Your task to perform on an android device: stop showing notifications on the lock screen Image 0: 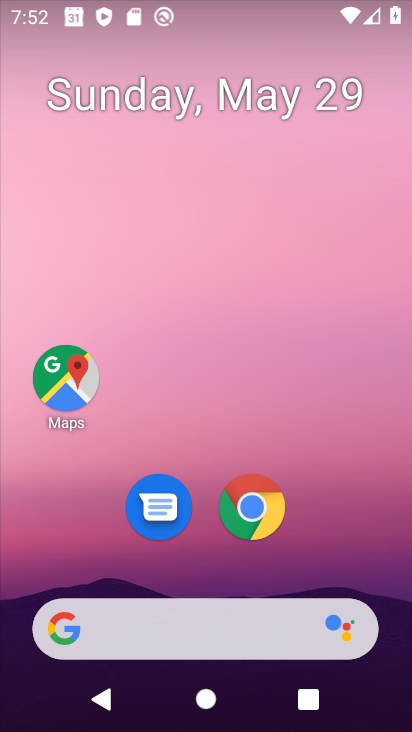
Step 0: drag from (380, 568) to (274, 188)
Your task to perform on an android device: stop showing notifications on the lock screen Image 1: 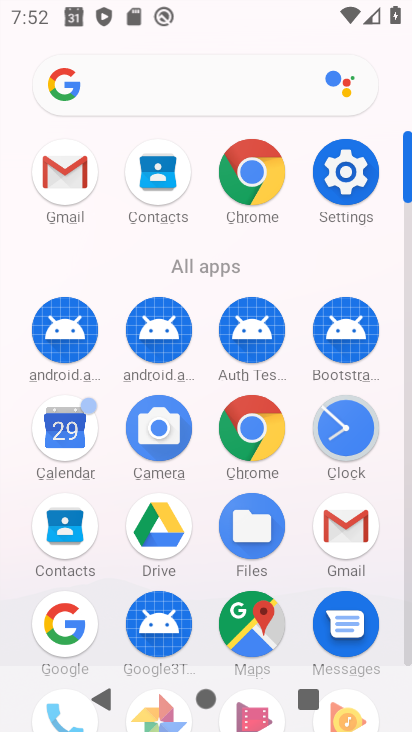
Step 1: click (327, 185)
Your task to perform on an android device: stop showing notifications on the lock screen Image 2: 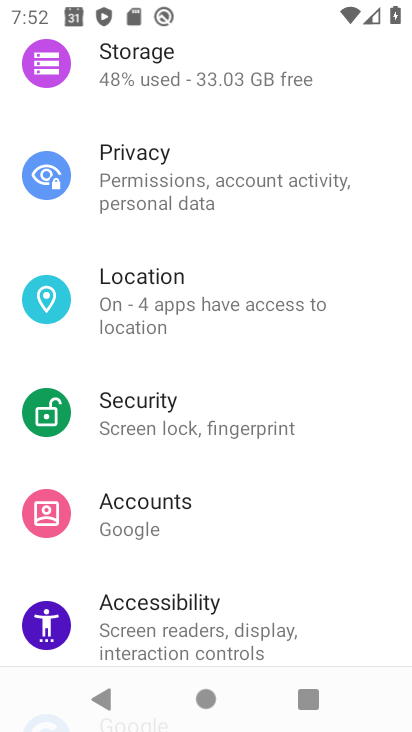
Step 2: drag from (169, 115) to (170, 579)
Your task to perform on an android device: stop showing notifications on the lock screen Image 3: 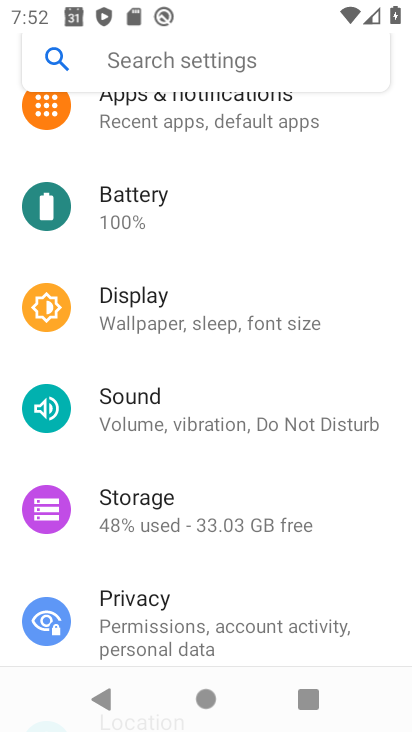
Step 3: drag from (191, 216) to (195, 445)
Your task to perform on an android device: stop showing notifications on the lock screen Image 4: 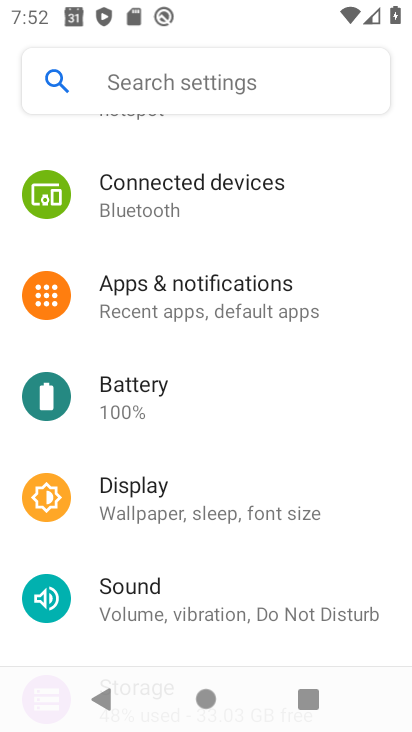
Step 4: click (183, 316)
Your task to perform on an android device: stop showing notifications on the lock screen Image 5: 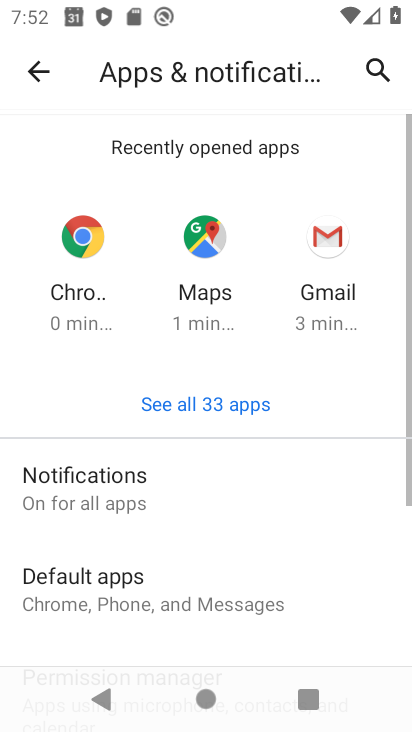
Step 5: click (125, 467)
Your task to perform on an android device: stop showing notifications on the lock screen Image 6: 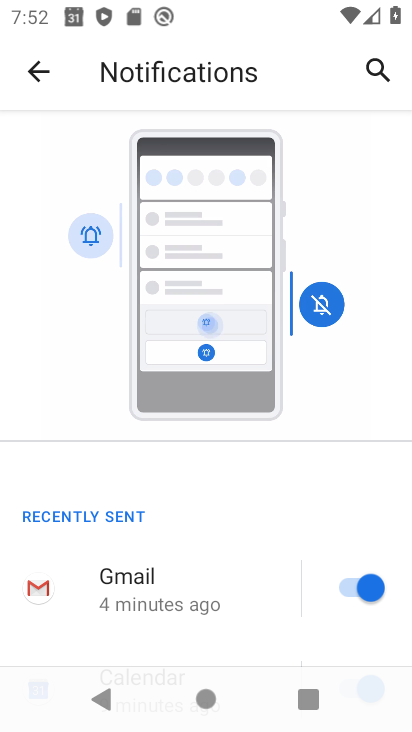
Step 6: drag from (235, 508) to (182, 9)
Your task to perform on an android device: stop showing notifications on the lock screen Image 7: 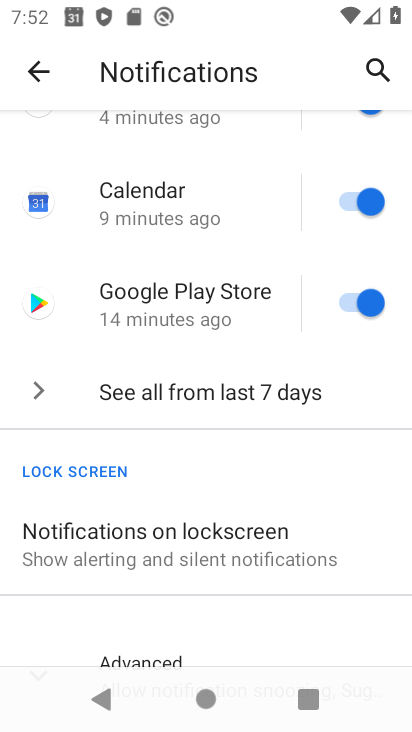
Step 7: drag from (277, 528) to (42, 327)
Your task to perform on an android device: stop showing notifications on the lock screen Image 8: 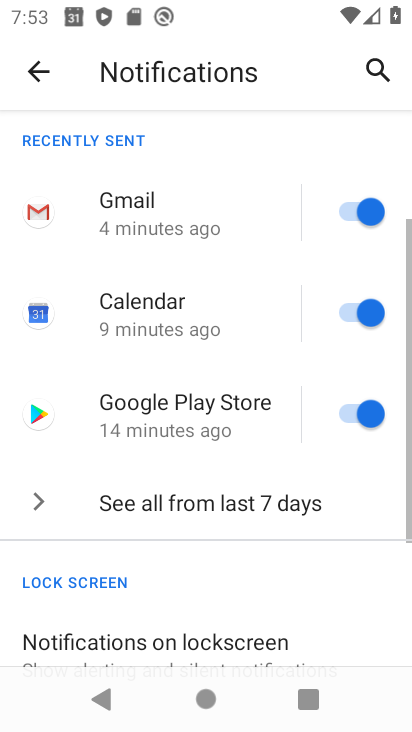
Step 8: click (229, 468)
Your task to perform on an android device: stop showing notifications on the lock screen Image 9: 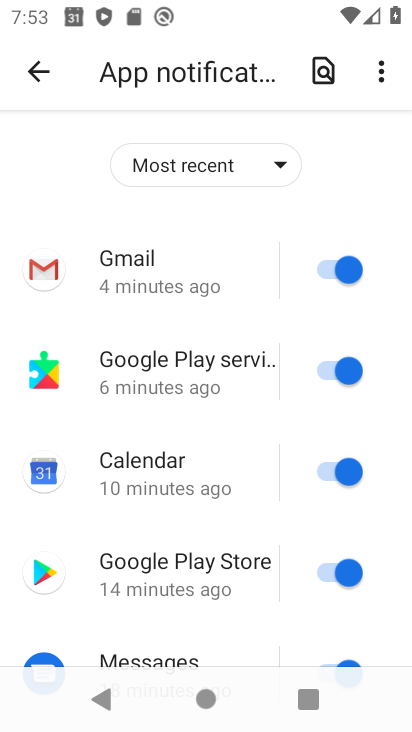
Step 9: drag from (174, 596) to (192, 140)
Your task to perform on an android device: stop showing notifications on the lock screen Image 10: 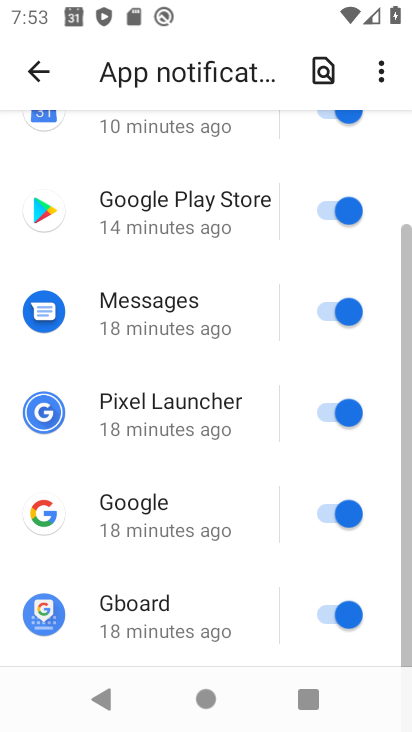
Step 10: click (36, 73)
Your task to perform on an android device: stop showing notifications on the lock screen Image 11: 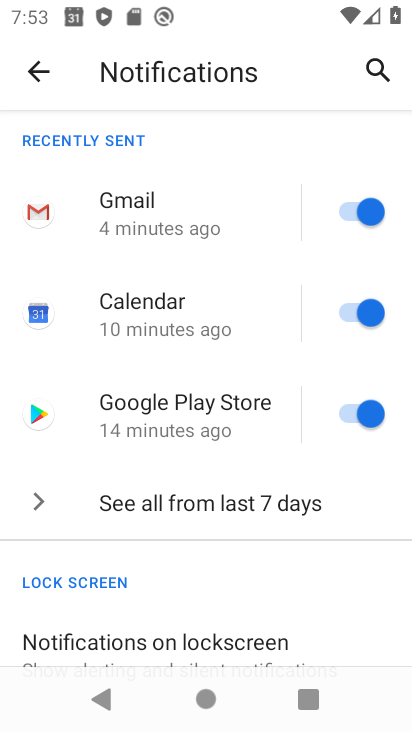
Step 11: click (187, 643)
Your task to perform on an android device: stop showing notifications on the lock screen Image 12: 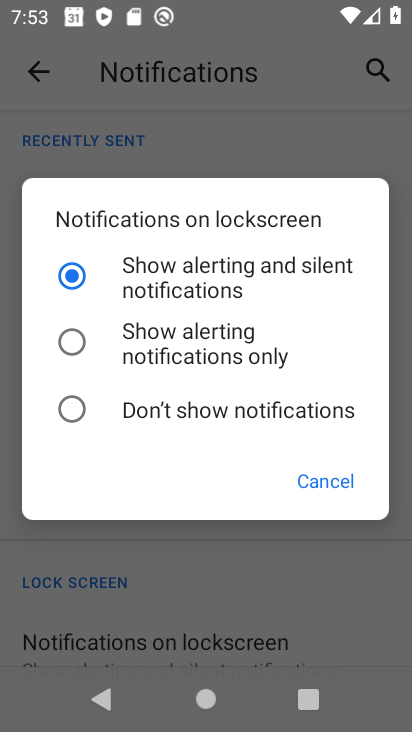
Step 12: click (203, 409)
Your task to perform on an android device: stop showing notifications on the lock screen Image 13: 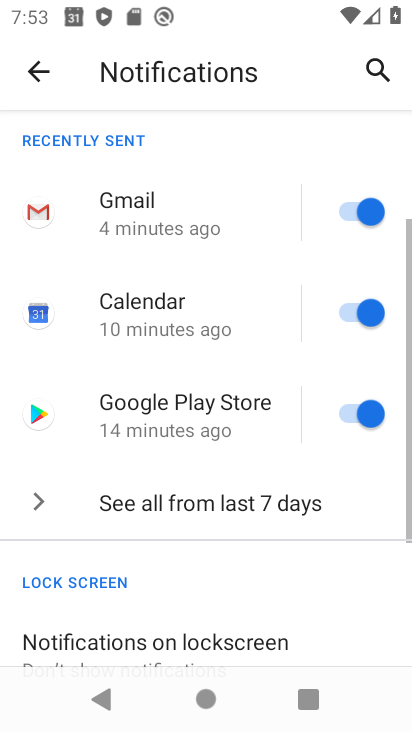
Step 13: task complete